Your task to perform on an android device: Open Google Chrome Image 0: 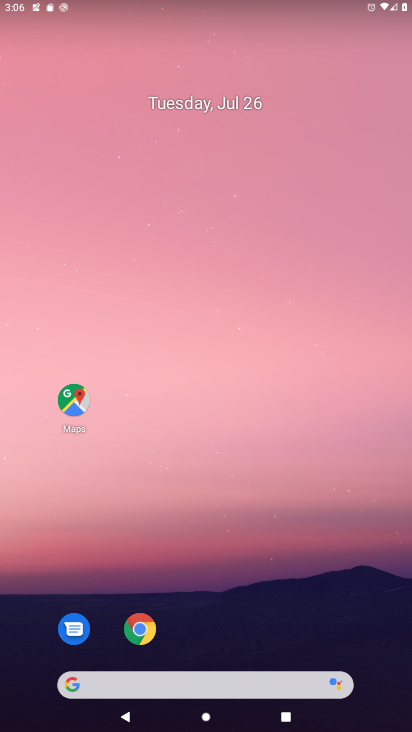
Step 0: click (138, 631)
Your task to perform on an android device: Open Google Chrome Image 1: 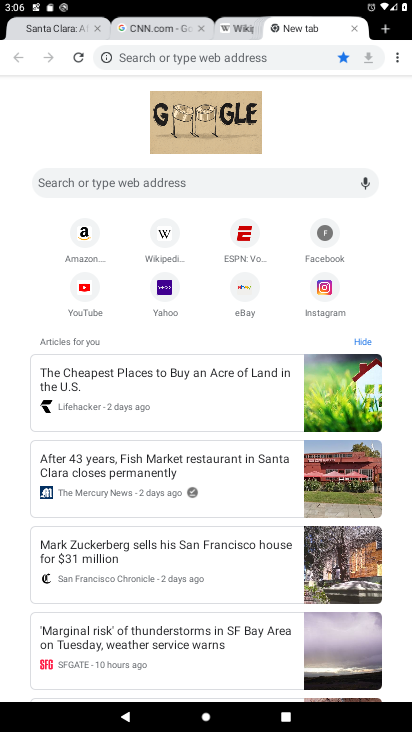
Step 1: task complete